Your task to perform on an android device: Open accessibility settings Image 0: 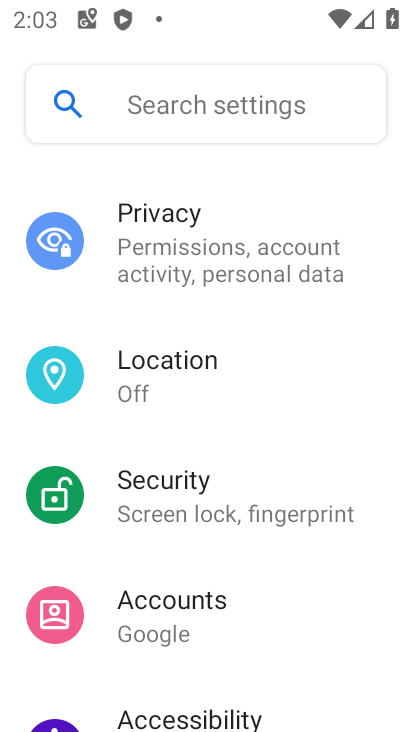
Step 0: drag from (76, 626) to (313, 120)
Your task to perform on an android device: Open accessibility settings Image 1: 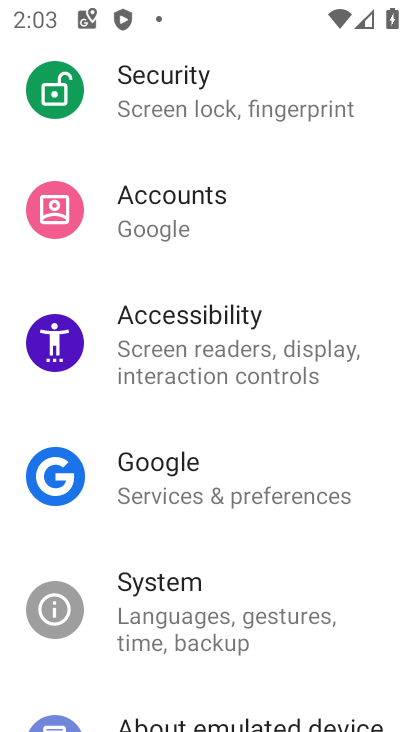
Step 1: drag from (150, 656) to (305, 179)
Your task to perform on an android device: Open accessibility settings Image 2: 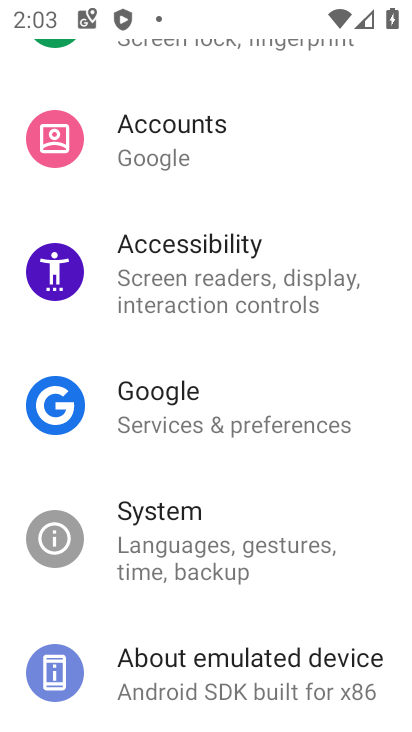
Step 2: click (269, 262)
Your task to perform on an android device: Open accessibility settings Image 3: 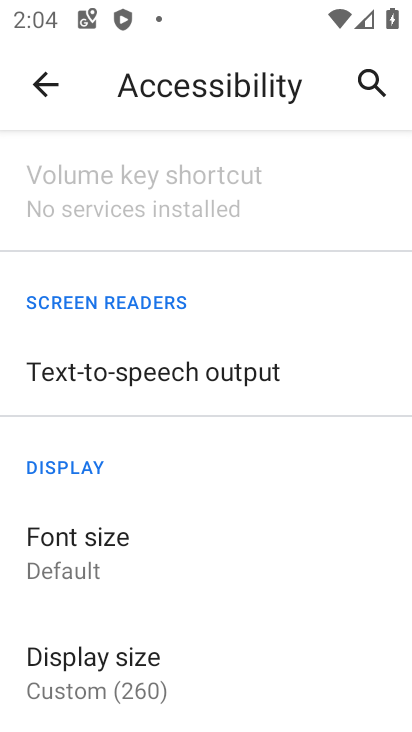
Step 3: task complete